Your task to perform on an android device: Go to Reddit.com Image 0: 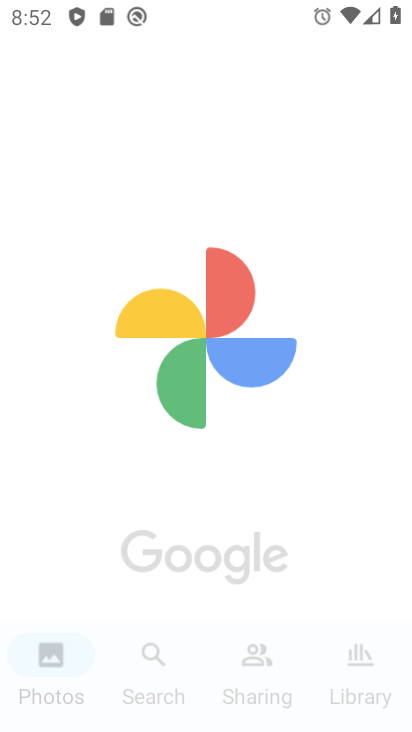
Step 0: drag from (206, 524) to (138, 8)
Your task to perform on an android device: Go to Reddit.com Image 1: 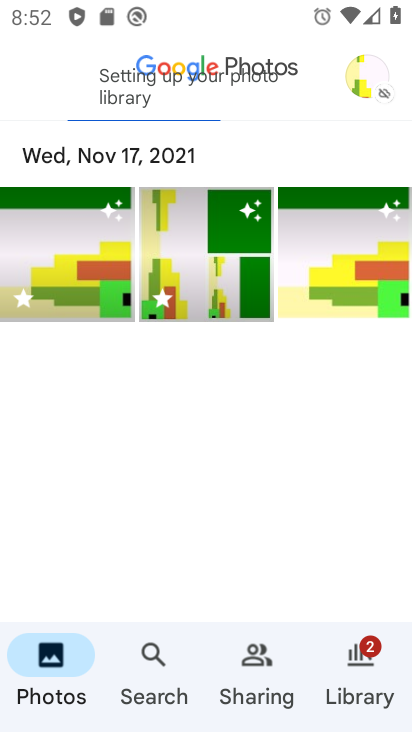
Step 1: press home button
Your task to perform on an android device: Go to Reddit.com Image 2: 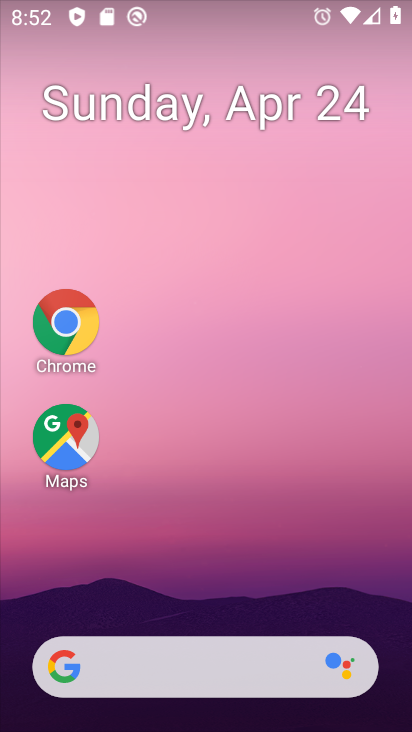
Step 2: click (180, 668)
Your task to perform on an android device: Go to Reddit.com Image 3: 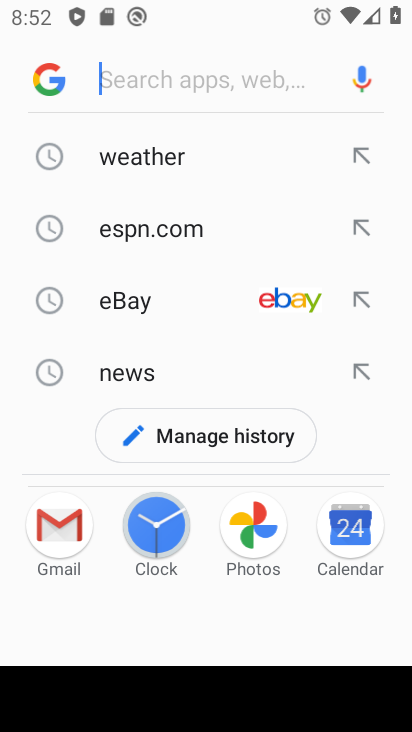
Step 3: type "reddit.com"
Your task to perform on an android device: Go to Reddit.com Image 4: 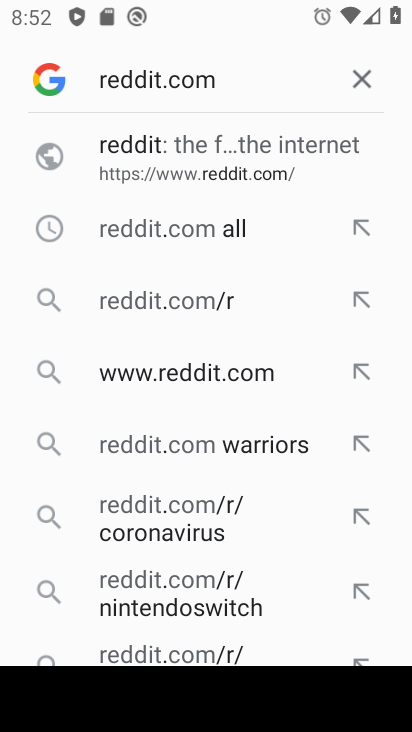
Step 4: click (200, 145)
Your task to perform on an android device: Go to Reddit.com Image 5: 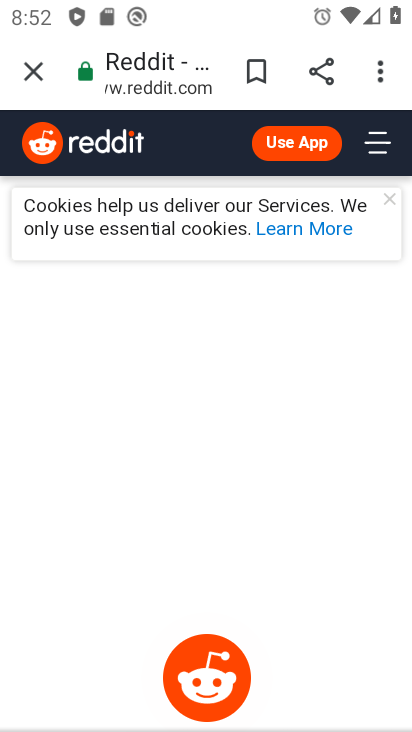
Step 5: task complete